Your task to perform on an android device: What's the news in Paraguay? Image 0: 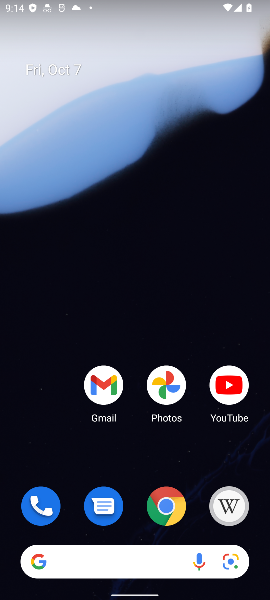
Step 0: click (165, 509)
Your task to perform on an android device: What's the news in Paraguay? Image 1: 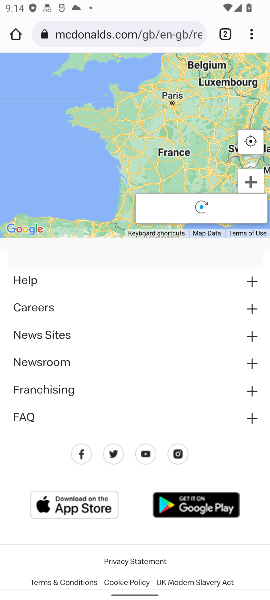
Step 1: click (129, 28)
Your task to perform on an android device: What's the news in Paraguay? Image 2: 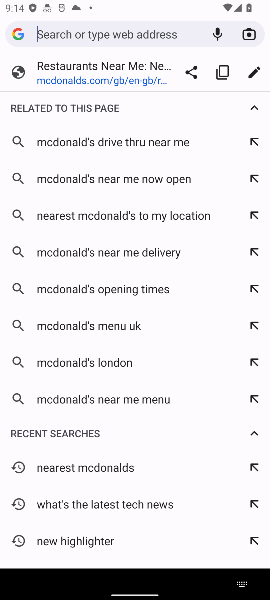
Step 2: type "news in Paraguay"
Your task to perform on an android device: What's the news in Paraguay? Image 3: 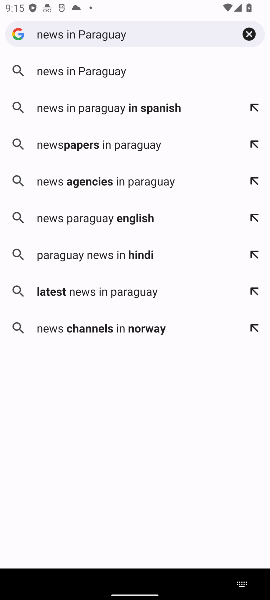
Step 3: click (98, 65)
Your task to perform on an android device: What's the news in Paraguay? Image 4: 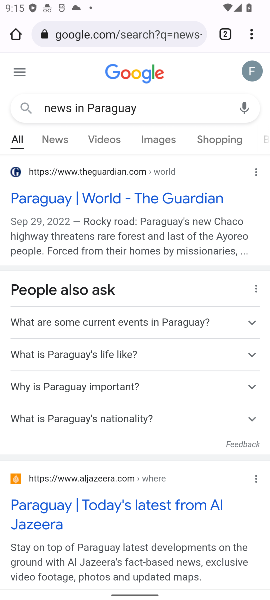
Step 4: click (61, 137)
Your task to perform on an android device: What's the news in Paraguay? Image 5: 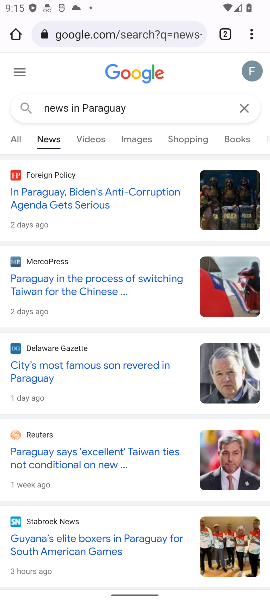
Step 5: task complete